Your task to perform on an android device: Go to network settings Image 0: 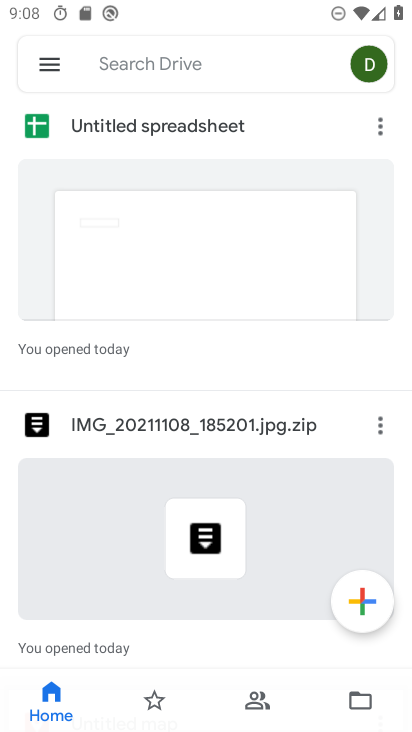
Step 0: press back button
Your task to perform on an android device: Go to network settings Image 1: 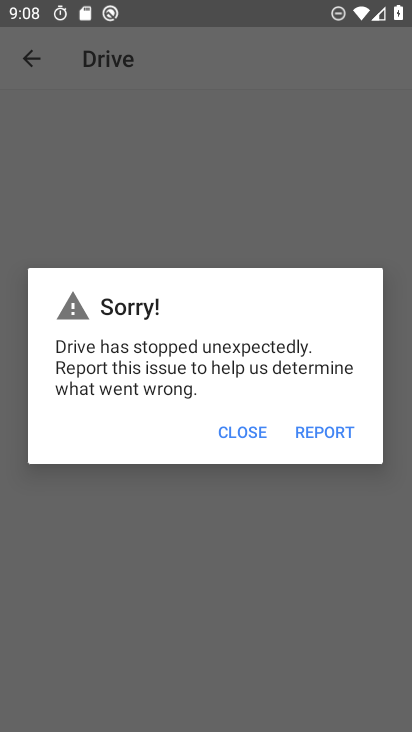
Step 1: press home button
Your task to perform on an android device: Go to network settings Image 2: 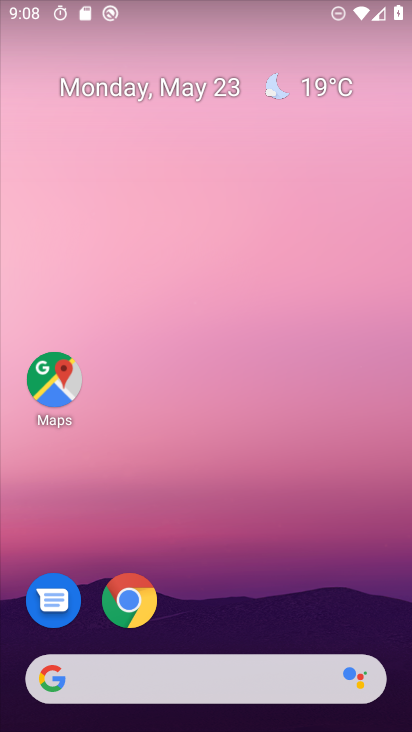
Step 2: drag from (5, 607) to (261, 124)
Your task to perform on an android device: Go to network settings Image 3: 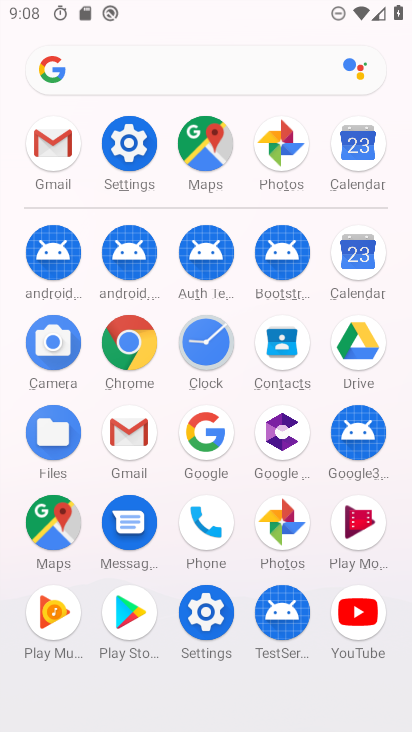
Step 3: click (133, 146)
Your task to perform on an android device: Go to network settings Image 4: 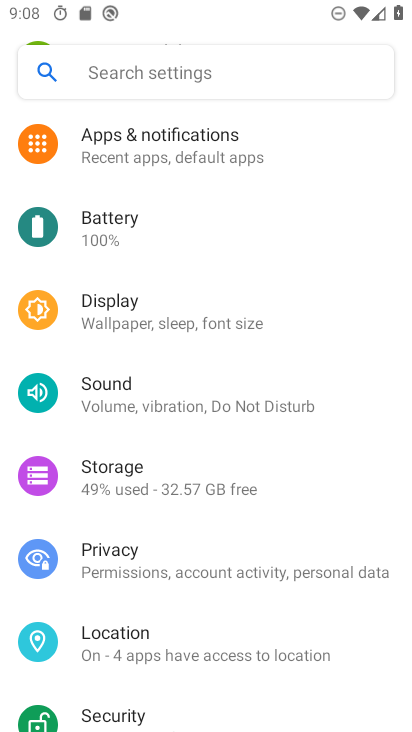
Step 4: drag from (175, 148) to (156, 576)
Your task to perform on an android device: Go to network settings Image 5: 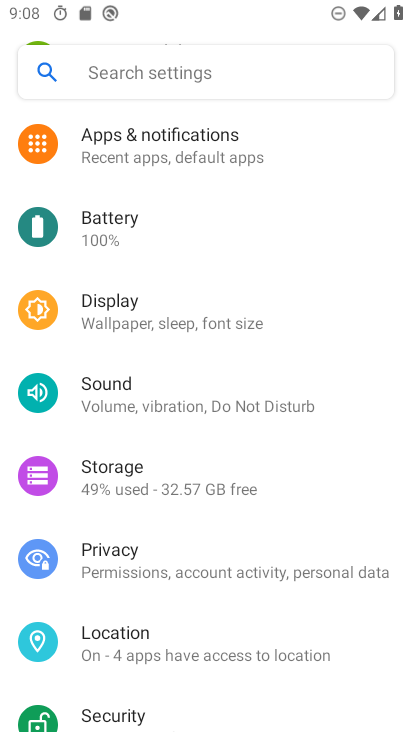
Step 5: drag from (115, 157) to (62, 636)
Your task to perform on an android device: Go to network settings Image 6: 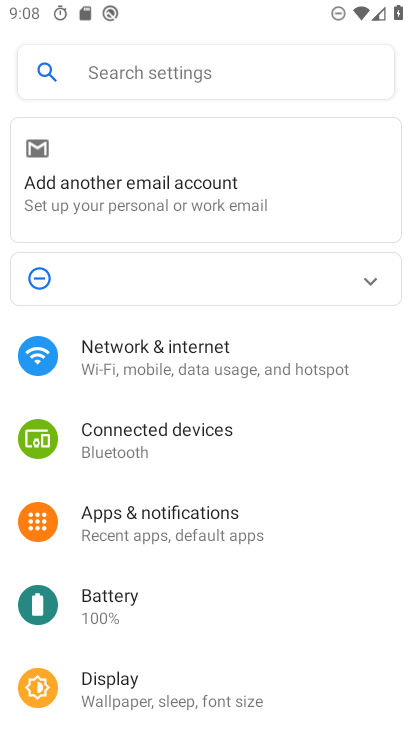
Step 6: click (130, 355)
Your task to perform on an android device: Go to network settings Image 7: 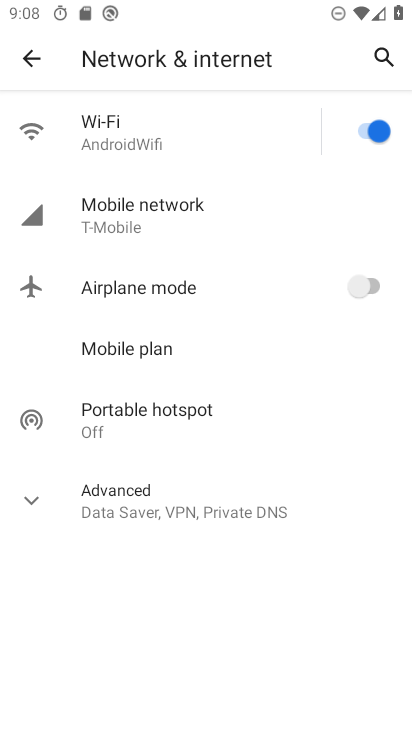
Step 7: click (175, 203)
Your task to perform on an android device: Go to network settings Image 8: 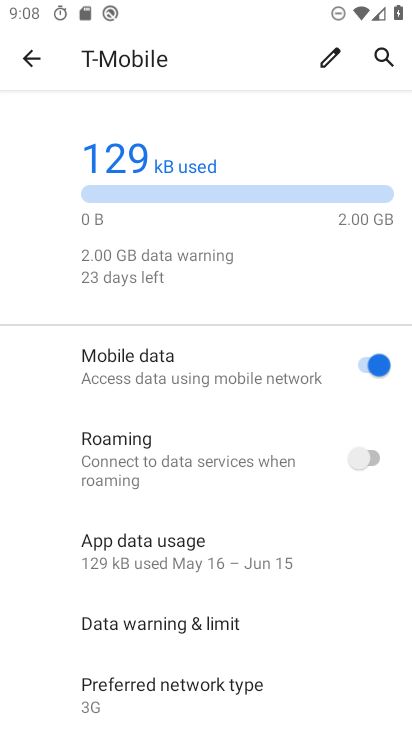
Step 8: task complete